Your task to perform on an android device: set the stopwatch Image 0: 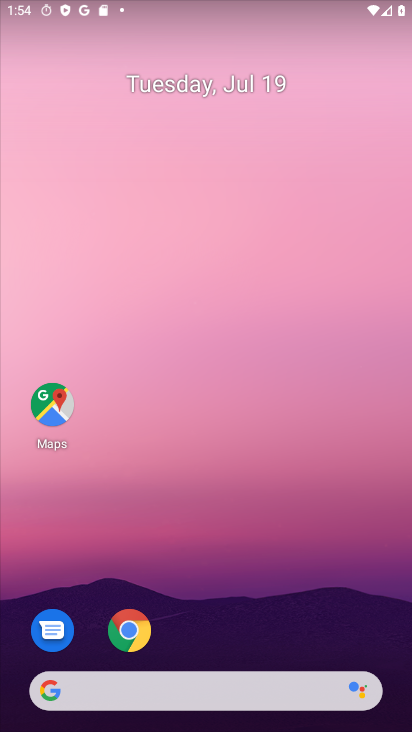
Step 0: drag from (281, 647) to (289, 121)
Your task to perform on an android device: set the stopwatch Image 1: 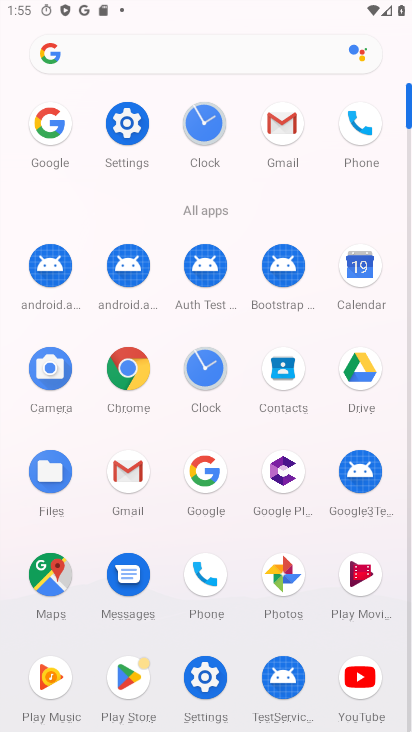
Step 1: click (198, 369)
Your task to perform on an android device: set the stopwatch Image 2: 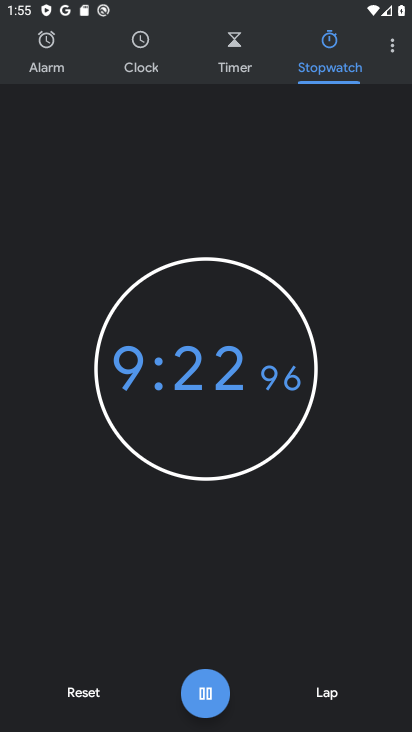
Step 2: task complete